Your task to perform on an android device: Set an alarm for 2pm Image 0: 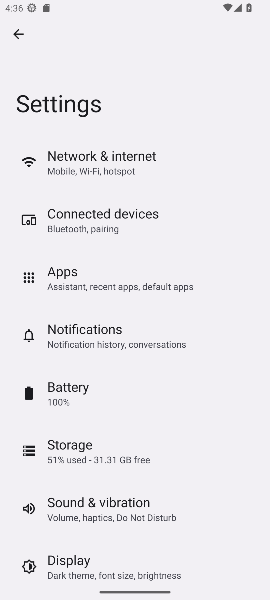
Step 0: press home button
Your task to perform on an android device: Set an alarm for 2pm Image 1: 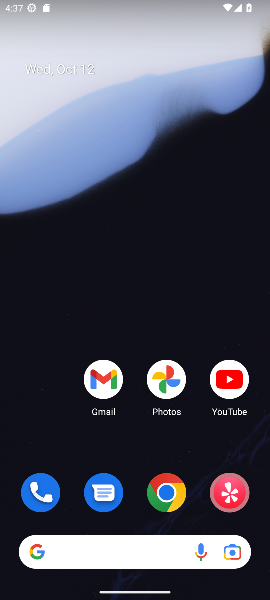
Step 1: drag from (144, 418) to (143, 70)
Your task to perform on an android device: Set an alarm for 2pm Image 2: 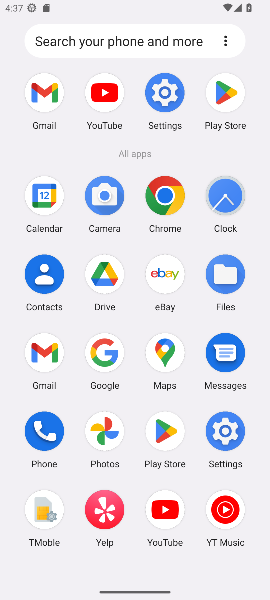
Step 2: click (220, 205)
Your task to perform on an android device: Set an alarm for 2pm Image 3: 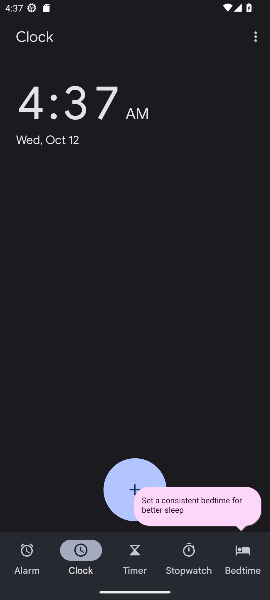
Step 3: click (27, 555)
Your task to perform on an android device: Set an alarm for 2pm Image 4: 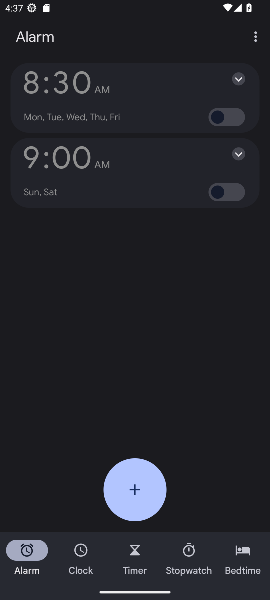
Step 4: click (138, 488)
Your task to perform on an android device: Set an alarm for 2pm Image 5: 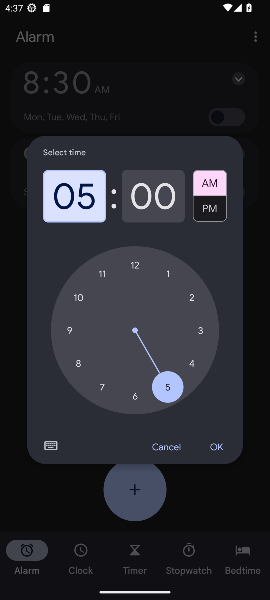
Step 5: click (194, 303)
Your task to perform on an android device: Set an alarm for 2pm Image 6: 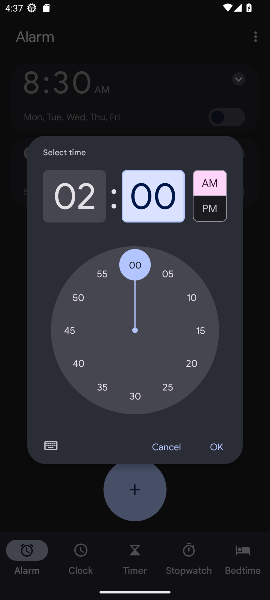
Step 6: click (133, 265)
Your task to perform on an android device: Set an alarm for 2pm Image 7: 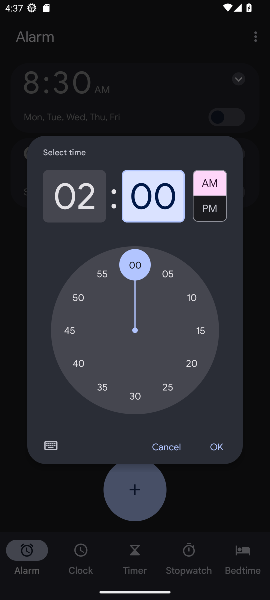
Step 7: click (196, 215)
Your task to perform on an android device: Set an alarm for 2pm Image 8: 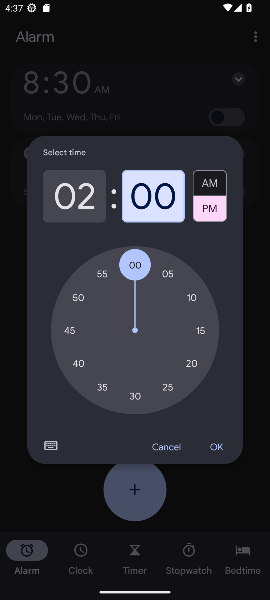
Step 8: click (221, 446)
Your task to perform on an android device: Set an alarm for 2pm Image 9: 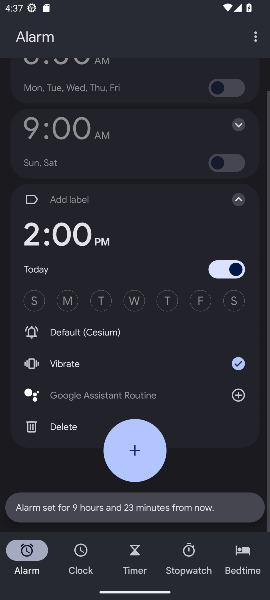
Step 9: task complete